Your task to perform on an android device: toggle translation in the chrome app Image 0: 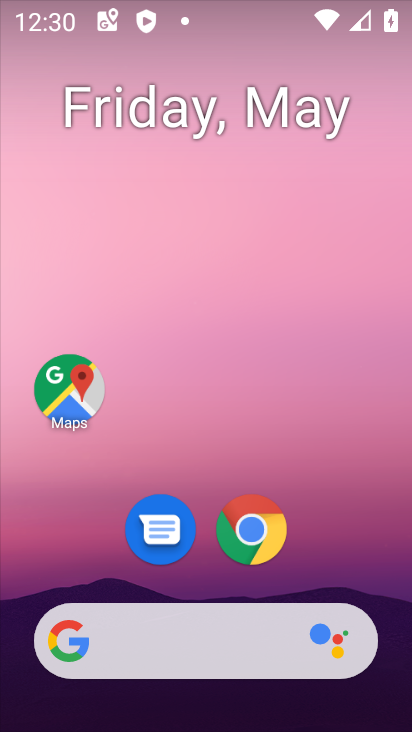
Step 0: click (276, 532)
Your task to perform on an android device: toggle translation in the chrome app Image 1: 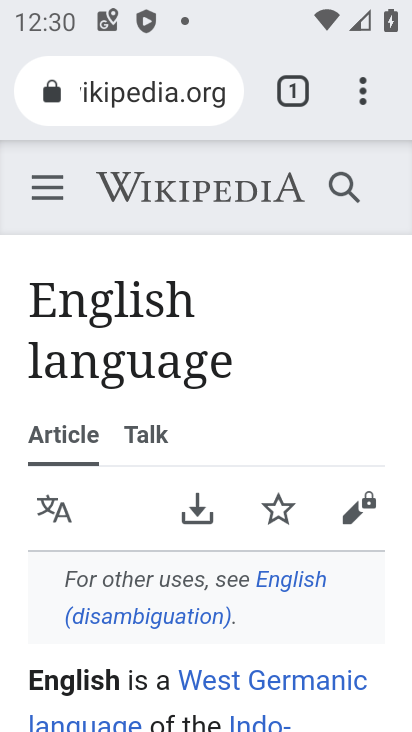
Step 1: click (362, 102)
Your task to perform on an android device: toggle translation in the chrome app Image 2: 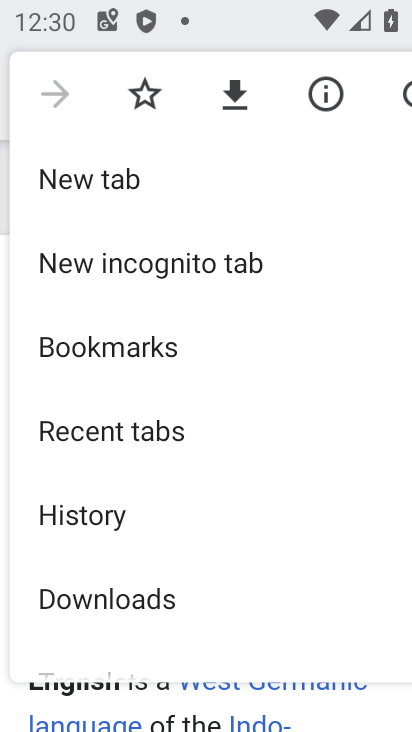
Step 2: drag from (234, 508) to (225, 196)
Your task to perform on an android device: toggle translation in the chrome app Image 3: 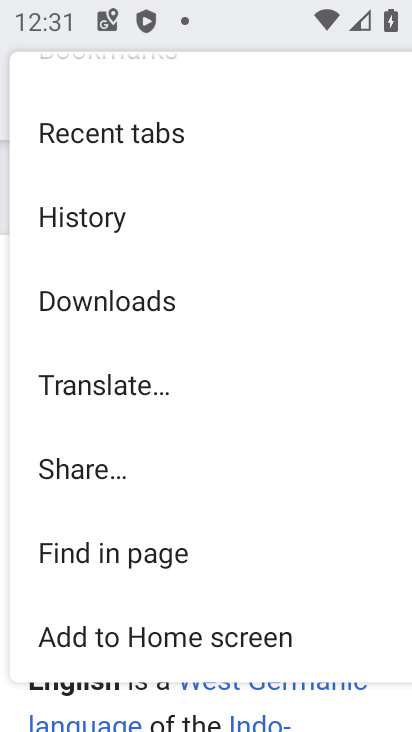
Step 3: drag from (174, 536) to (178, 407)
Your task to perform on an android device: toggle translation in the chrome app Image 4: 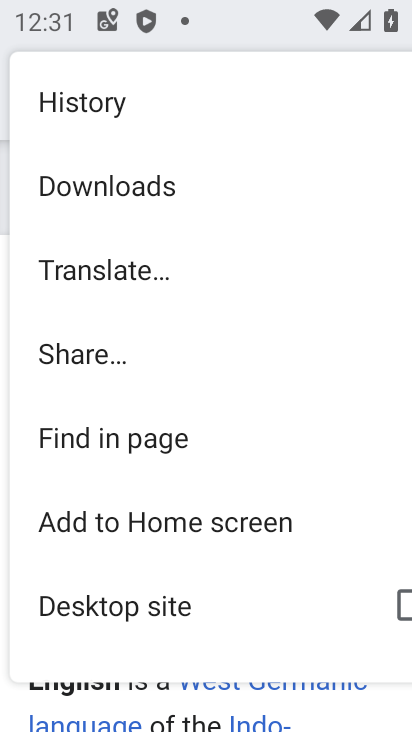
Step 4: drag from (168, 616) to (185, 349)
Your task to perform on an android device: toggle translation in the chrome app Image 5: 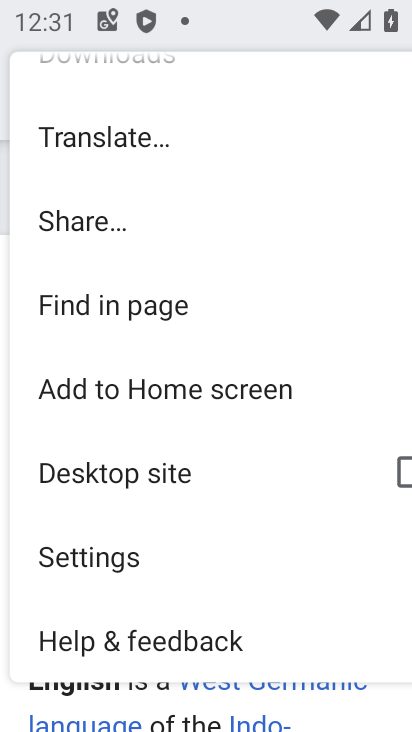
Step 5: click (162, 548)
Your task to perform on an android device: toggle translation in the chrome app Image 6: 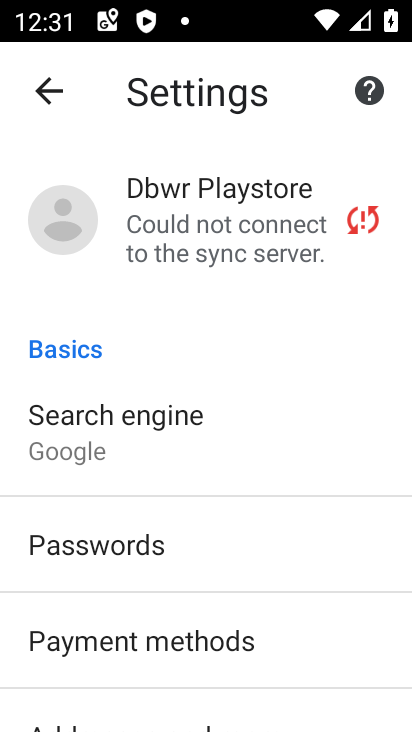
Step 6: drag from (129, 631) to (153, 256)
Your task to perform on an android device: toggle translation in the chrome app Image 7: 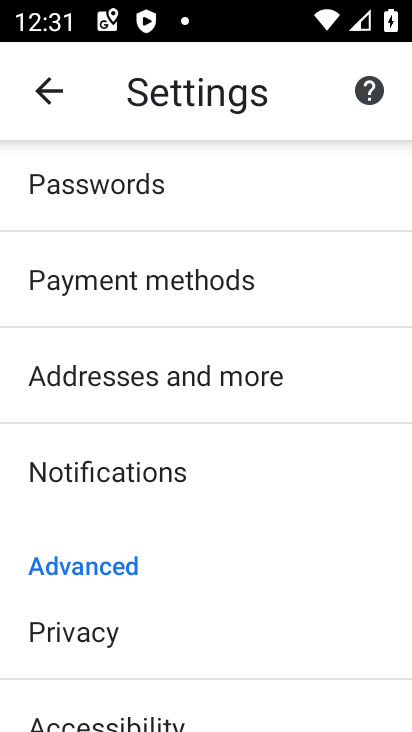
Step 7: drag from (170, 596) to (238, 136)
Your task to perform on an android device: toggle translation in the chrome app Image 8: 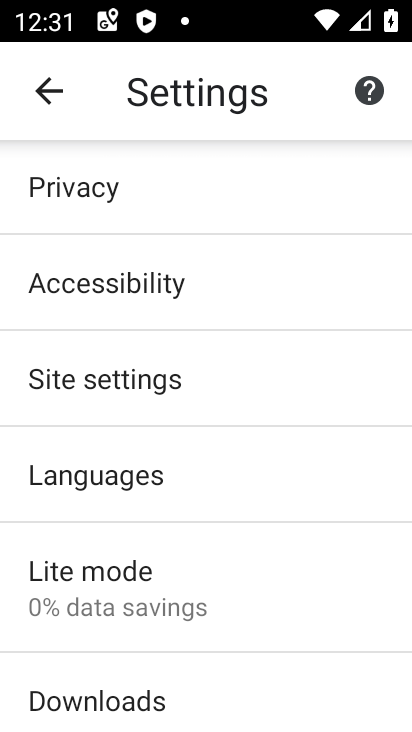
Step 8: click (258, 399)
Your task to perform on an android device: toggle translation in the chrome app Image 9: 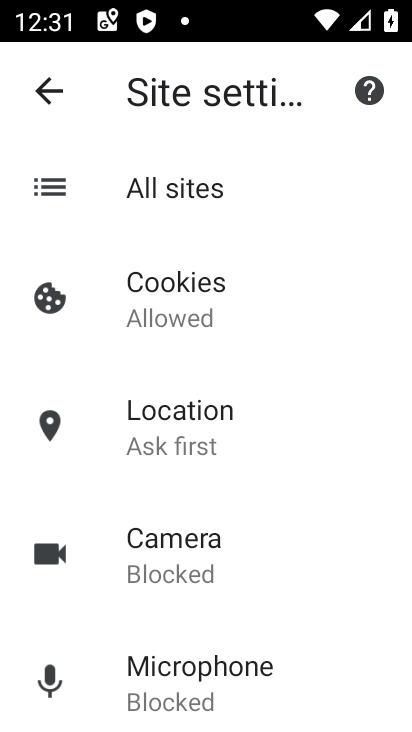
Step 9: task complete